Your task to perform on an android device: Open the map Image 0: 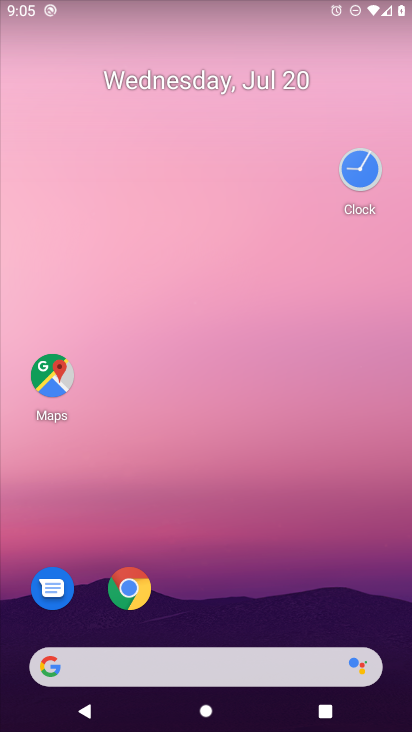
Step 0: drag from (78, 397) to (45, 374)
Your task to perform on an android device: Open the map Image 1: 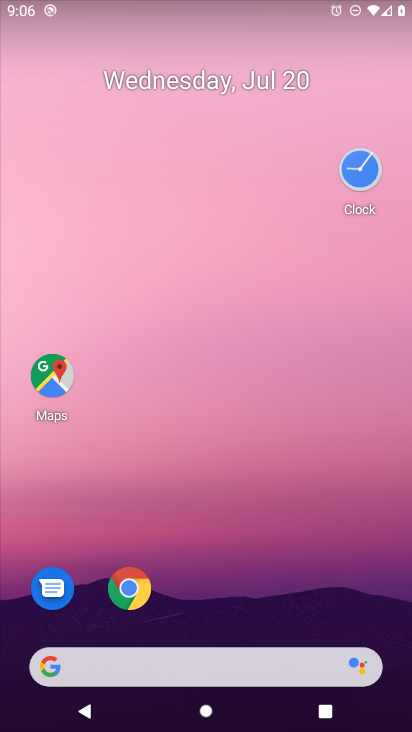
Step 1: click (40, 385)
Your task to perform on an android device: Open the map Image 2: 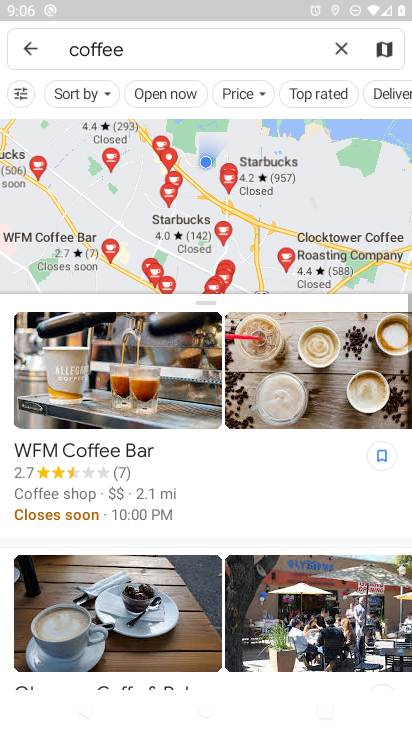
Step 2: click (30, 41)
Your task to perform on an android device: Open the map Image 3: 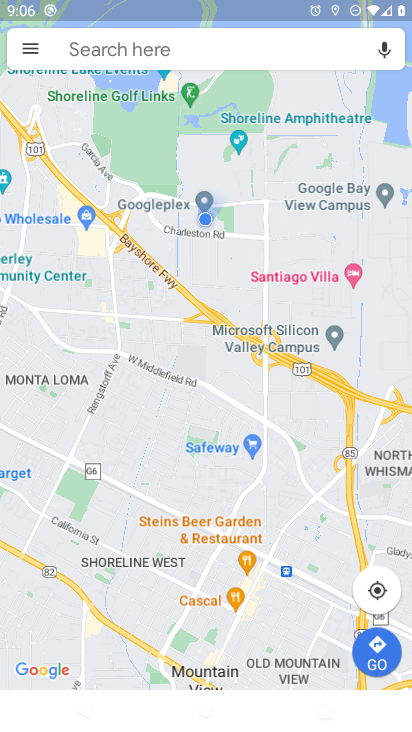
Step 3: task complete